Your task to perform on an android device: turn on notifications settings in the gmail app Image 0: 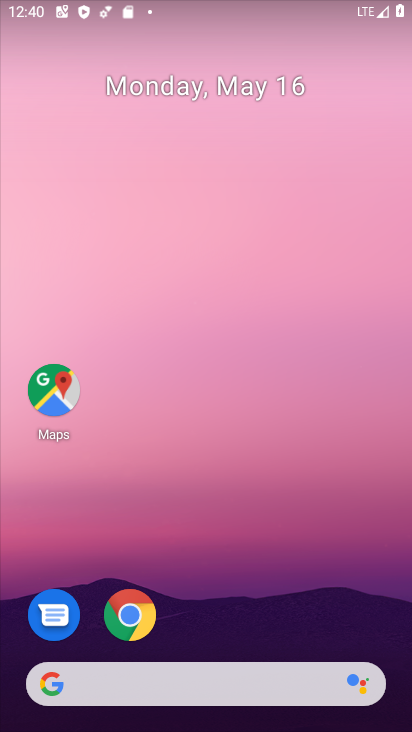
Step 0: drag from (258, 522) to (280, 180)
Your task to perform on an android device: turn on notifications settings in the gmail app Image 1: 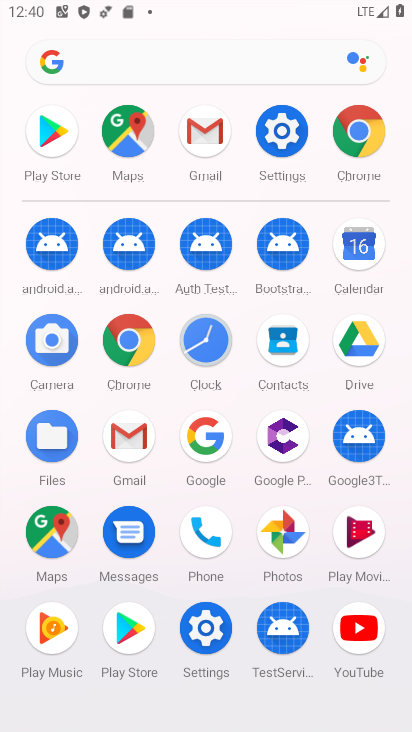
Step 1: click (223, 154)
Your task to perform on an android device: turn on notifications settings in the gmail app Image 2: 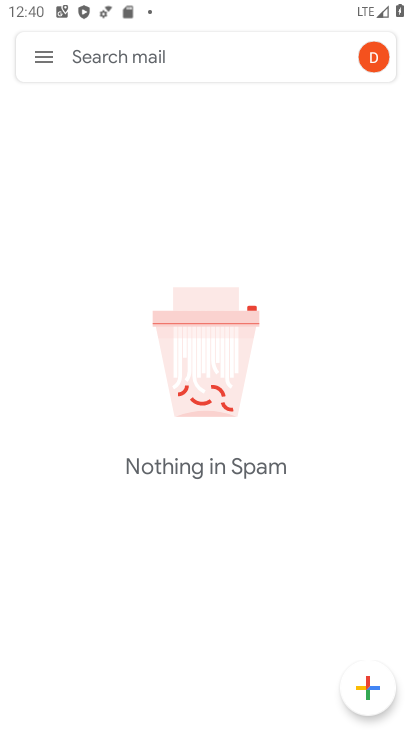
Step 2: click (42, 61)
Your task to perform on an android device: turn on notifications settings in the gmail app Image 3: 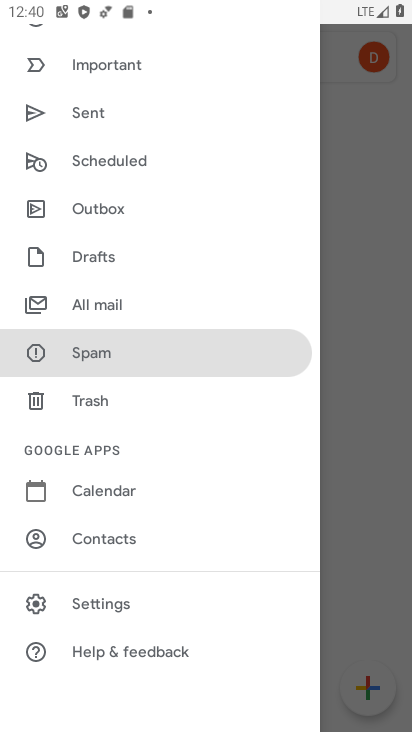
Step 3: click (143, 596)
Your task to perform on an android device: turn on notifications settings in the gmail app Image 4: 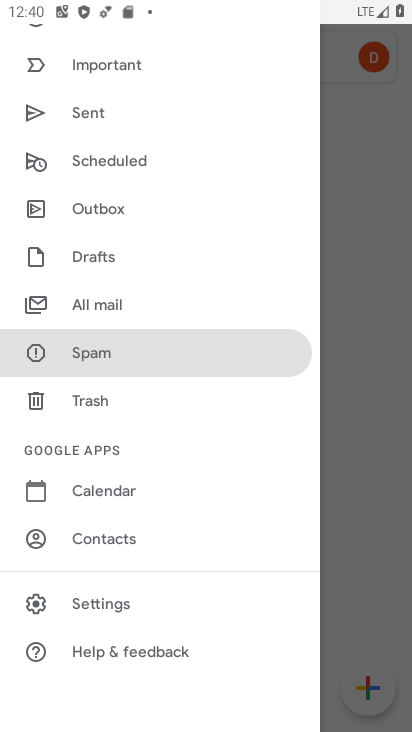
Step 4: click (143, 596)
Your task to perform on an android device: turn on notifications settings in the gmail app Image 5: 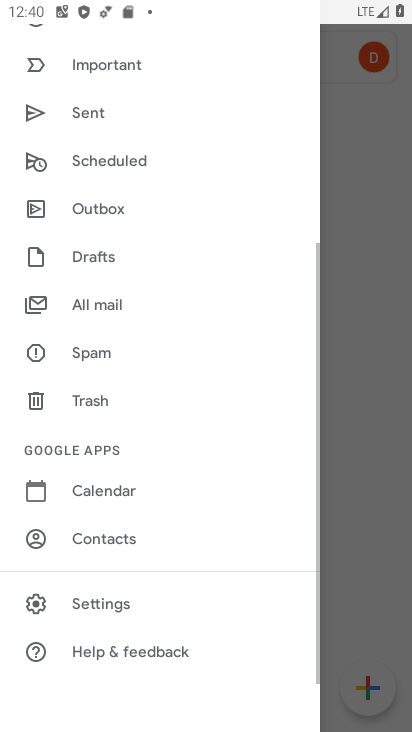
Step 5: click (143, 596)
Your task to perform on an android device: turn on notifications settings in the gmail app Image 6: 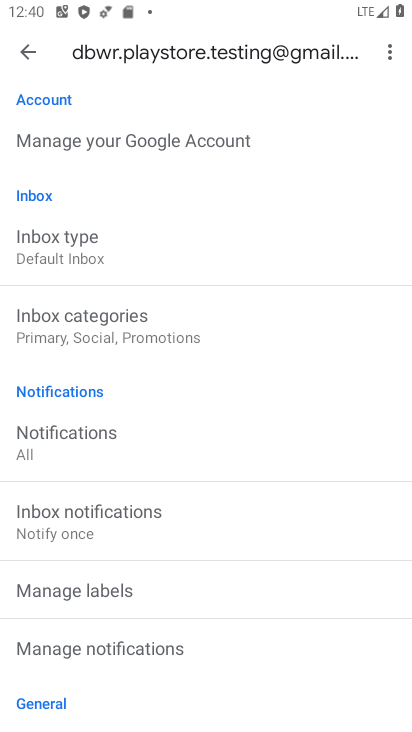
Step 6: click (133, 635)
Your task to perform on an android device: turn on notifications settings in the gmail app Image 7: 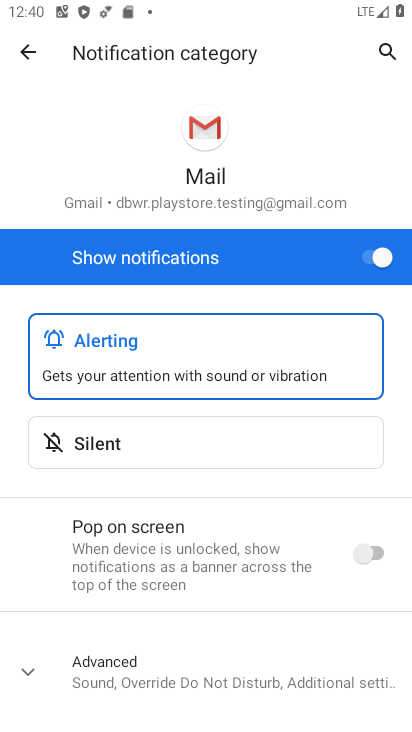
Step 7: task complete